Your task to perform on an android device: install app "Facebook" Image 0: 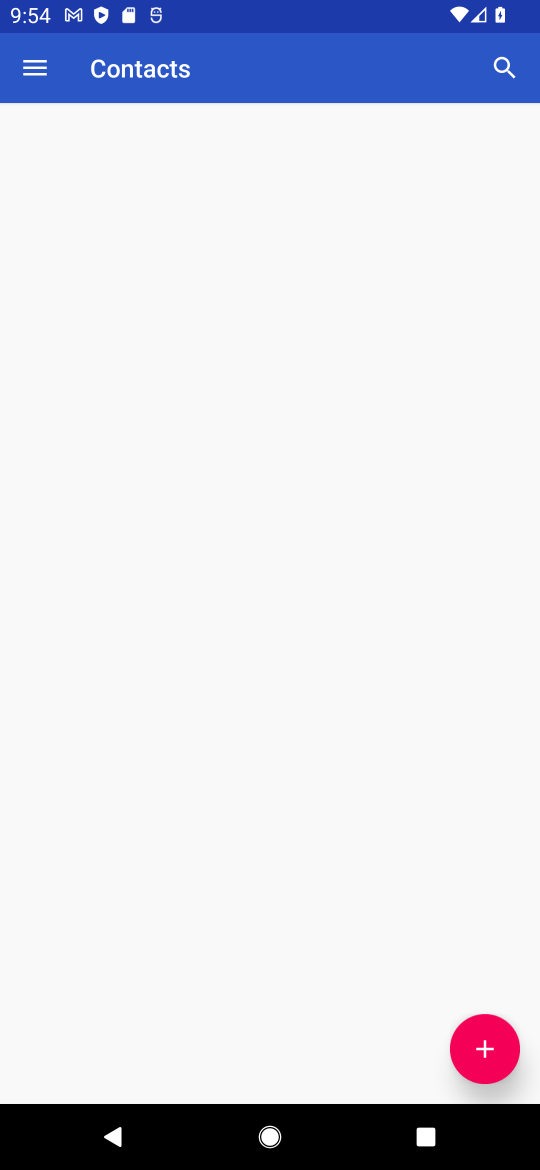
Step 0: press home button
Your task to perform on an android device: install app "Facebook" Image 1: 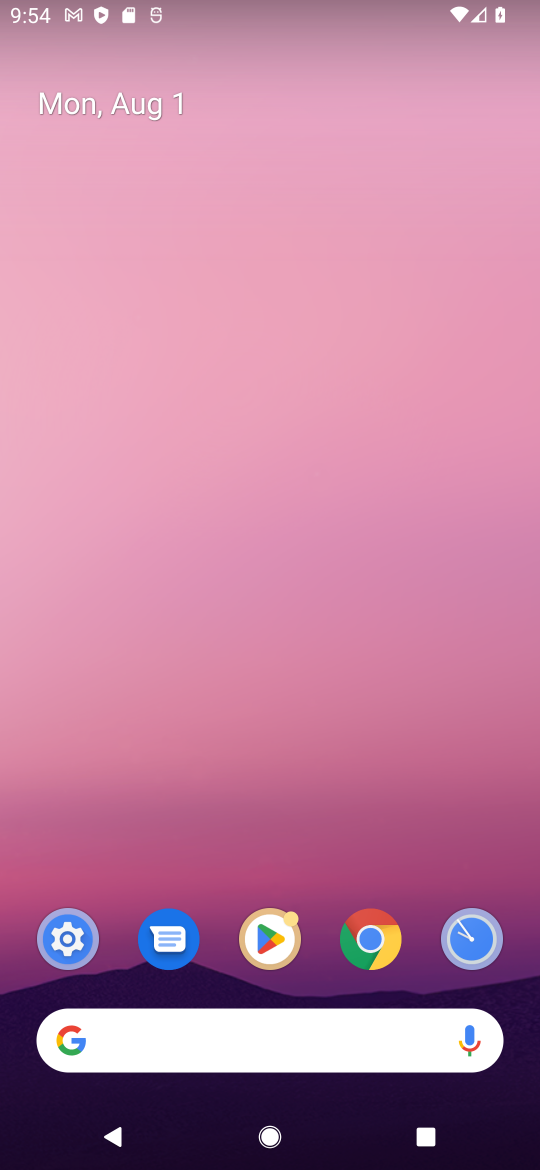
Step 1: click (277, 956)
Your task to perform on an android device: install app "Facebook" Image 2: 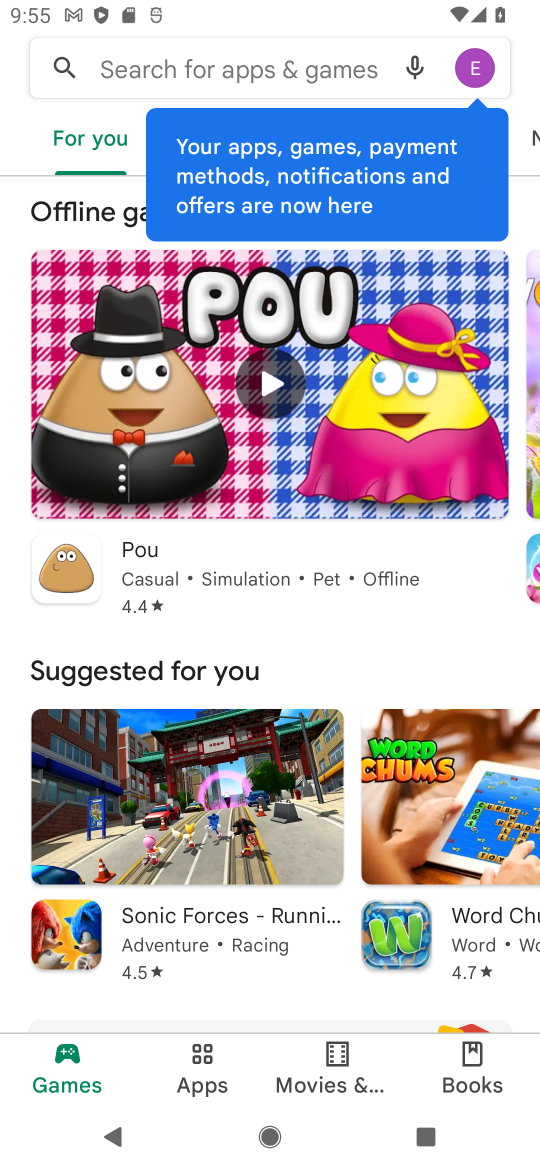
Step 2: click (122, 65)
Your task to perform on an android device: install app "Facebook" Image 3: 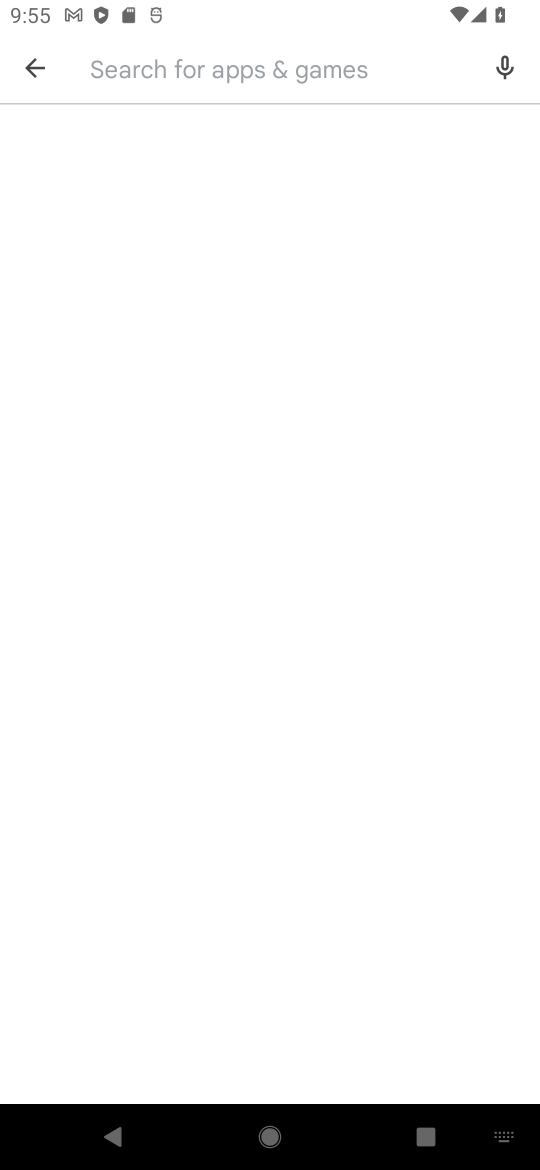
Step 3: type "facebook"
Your task to perform on an android device: install app "Facebook" Image 4: 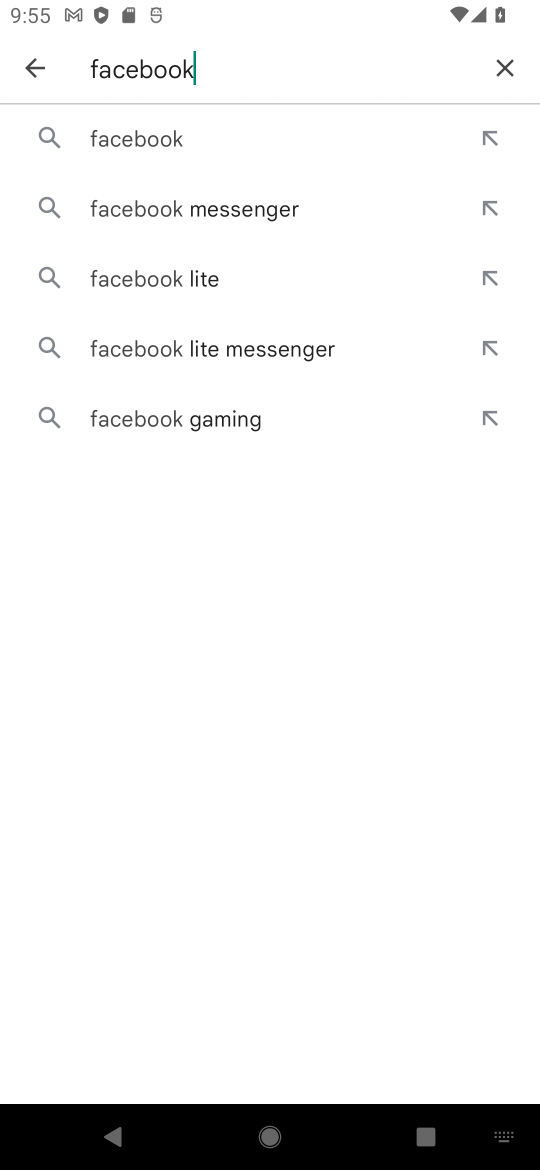
Step 4: click (216, 134)
Your task to perform on an android device: install app "Facebook" Image 5: 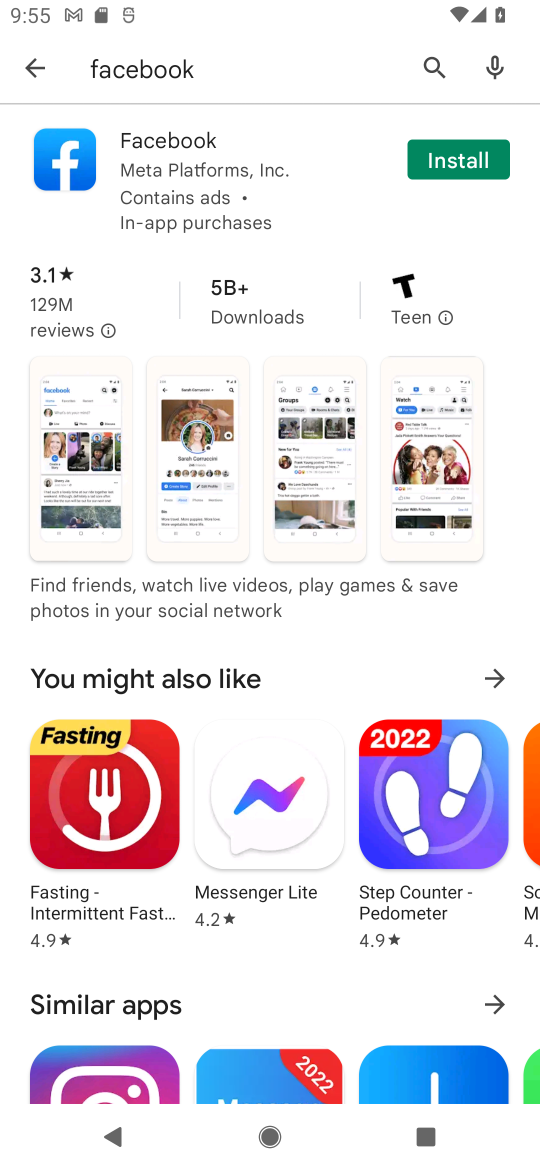
Step 5: click (495, 149)
Your task to perform on an android device: install app "Facebook" Image 6: 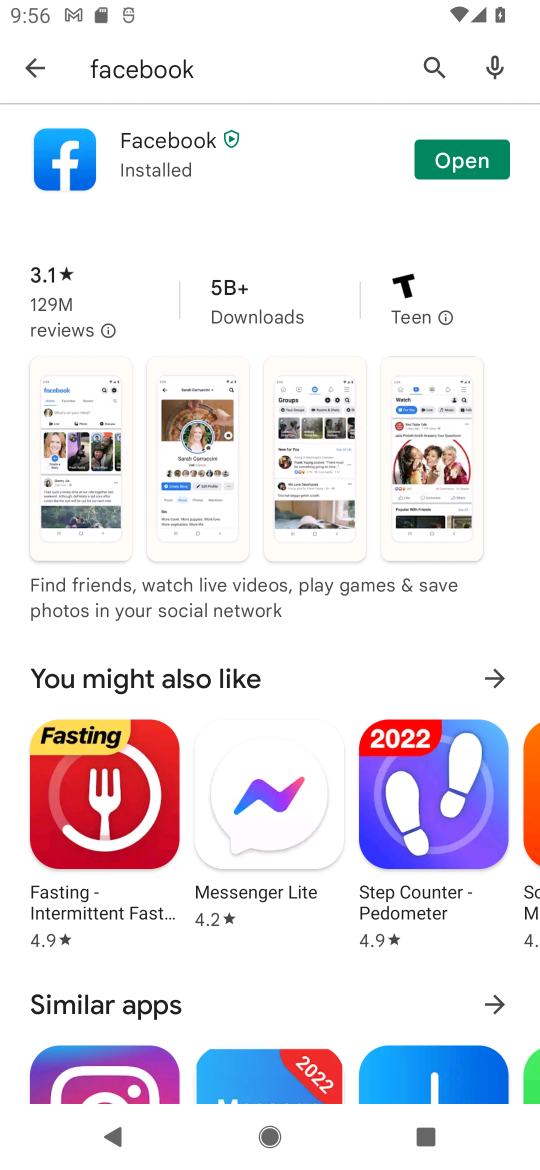
Step 6: task complete